Your task to perform on an android device: find photos in the google photos app Image 0: 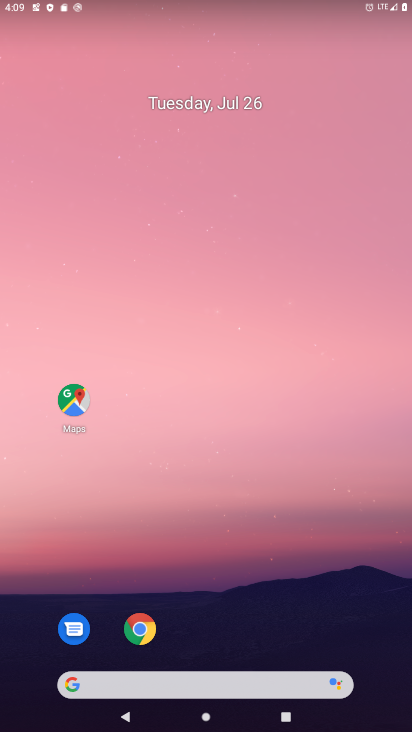
Step 0: drag from (225, 682) to (225, 94)
Your task to perform on an android device: find photos in the google photos app Image 1: 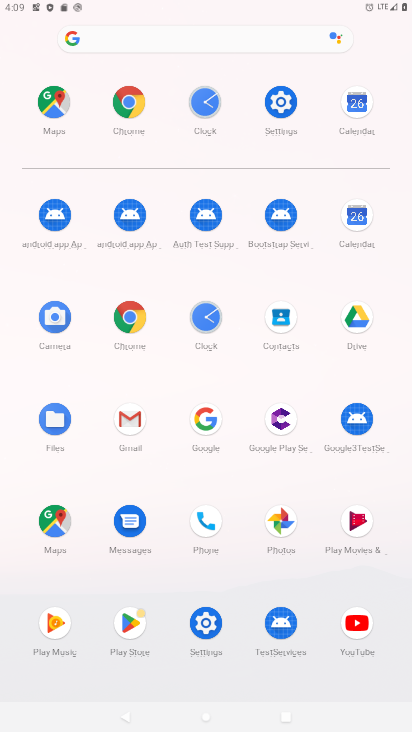
Step 1: click (285, 520)
Your task to perform on an android device: find photos in the google photos app Image 2: 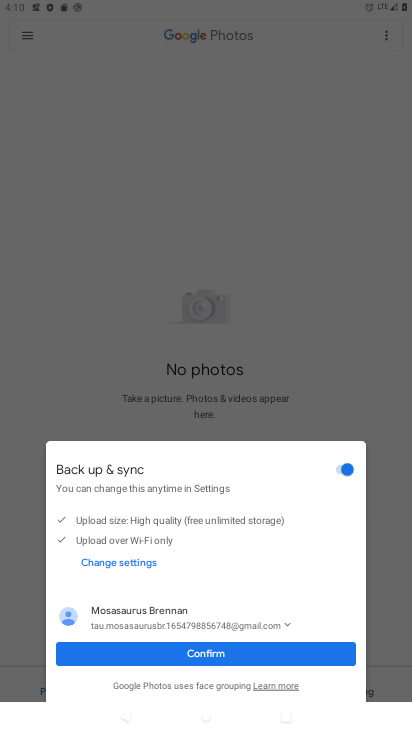
Step 2: click (194, 652)
Your task to perform on an android device: find photos in the google photos app Image 3: 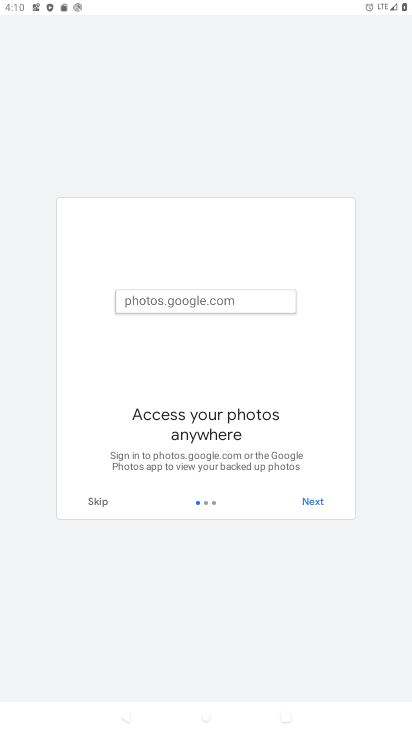
Step 3: click (314, 499)
Your task to perform on an android device: find photos in the google photos app Image 4: 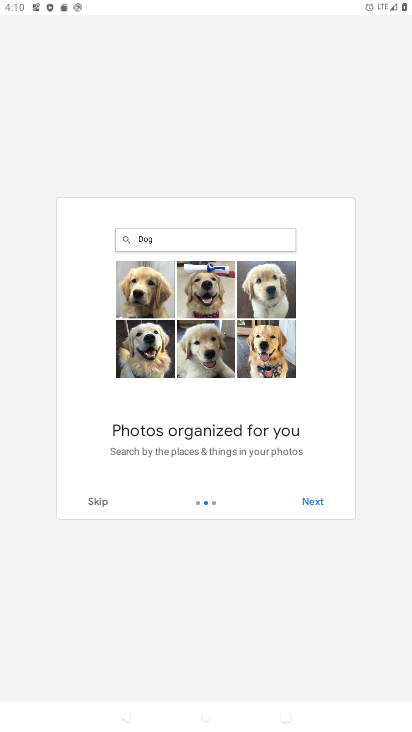
Step 4: click (312, 499)
Your task to perform on an android device: find photos in the google photos app Image 5: 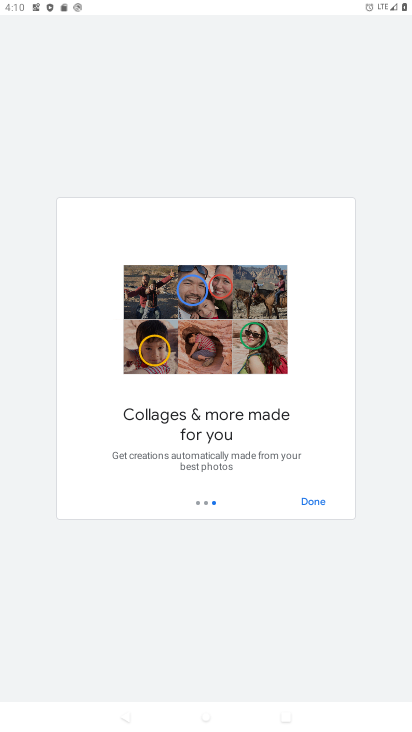
Step 5: click (312, 499)
Your task to perform on an android device: find photos in the google photos app Image 6: 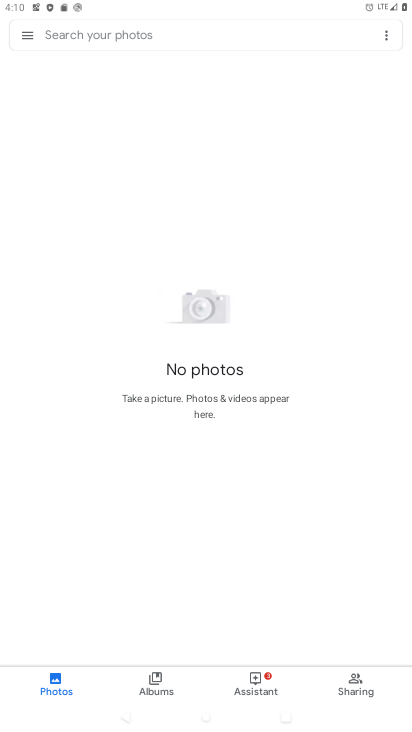
Step 6: task complete